Your task to perform on an android device: Go to battery settings Image 0: 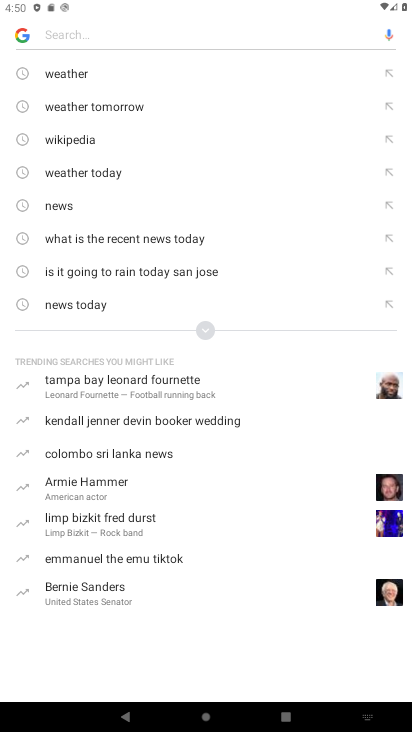
Step 0: press back button
Your task to perform on an android device: Go to battery settings Image 1: 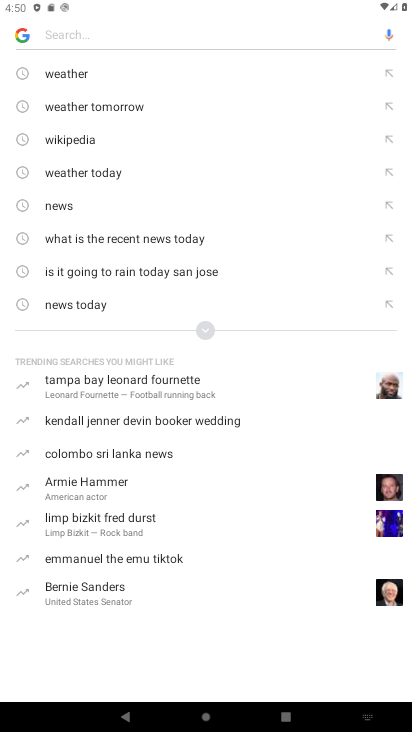
Step 1: press back button
Your task to perform on an android device: Go to battery settings Image 2: 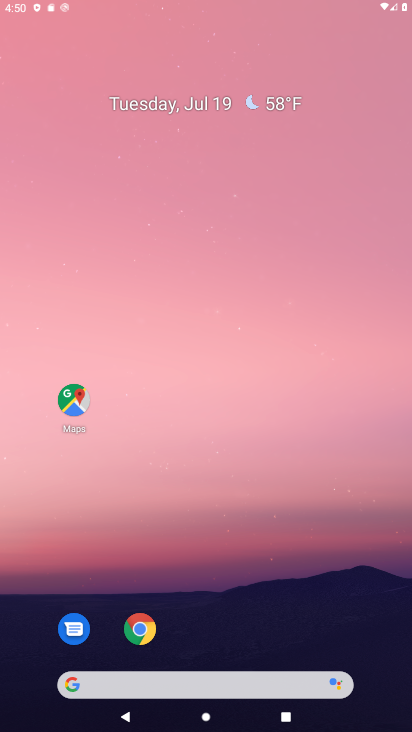
Step 2: press home button
Your task to perform on an android device: Go to battery settings Image 3: 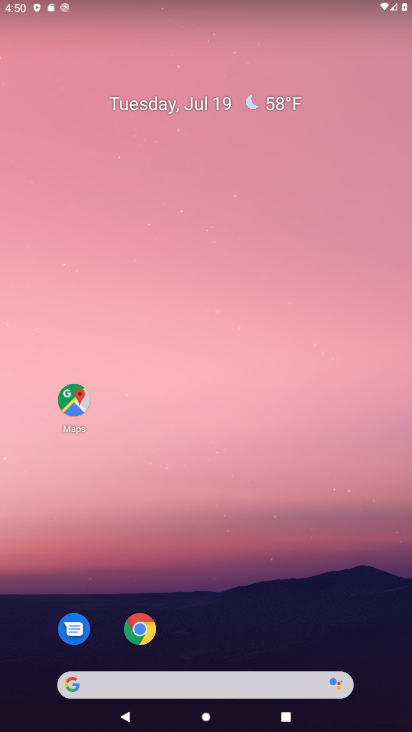
Step 3: press home button
Your task to perform on an android device: Go to battery settings Image 4: 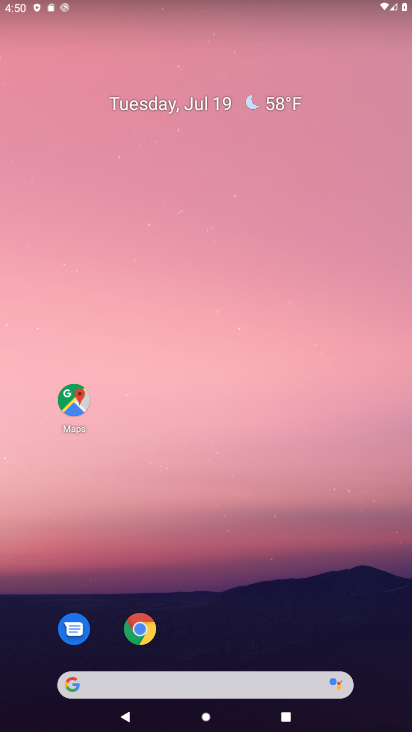
Step 4: drag from (184, 453) to (190, 211)
Your task to perform on an android device: Go to battery settings Image 5: 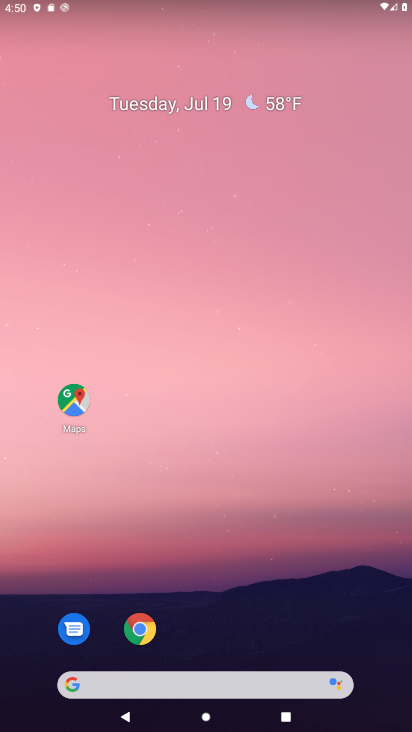
Step 5: click (192, 155)
Your task to perform on an android device: Go to battery settings Image 6: 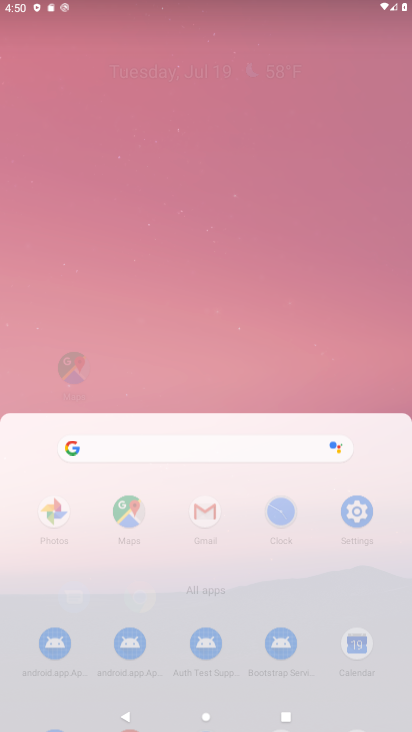
Step 6: drag from (168, 0) to (197, 61)
Your task to perform on an android device: Go to battery settings Image 7: 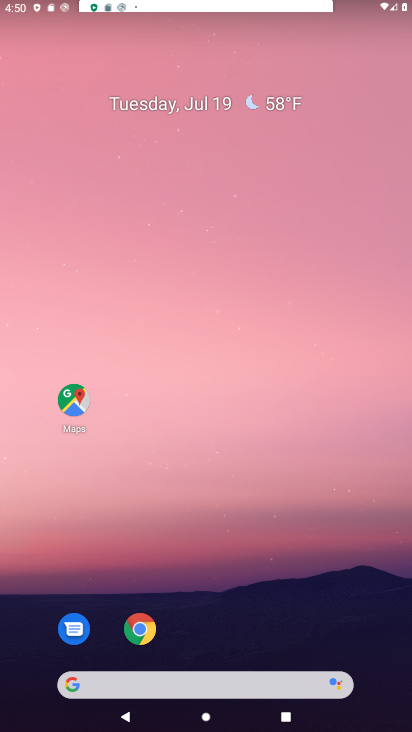
Step 7: drag from (266, 479) to (209, 153)
Your task to perform on an android device: Go to battery settings Image 8: 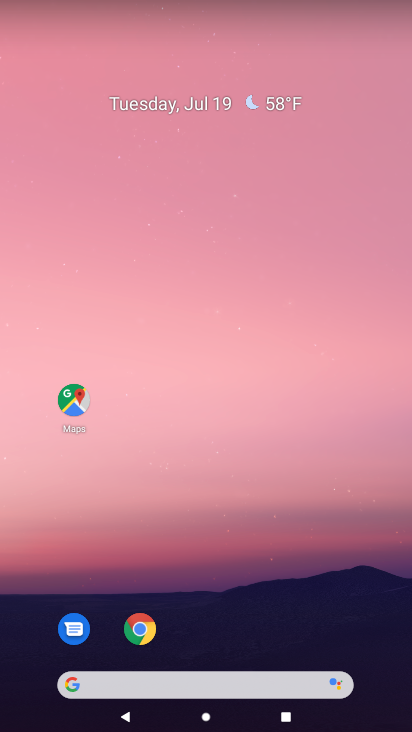
Step 8: drag from (257, 462) to (197, 172)
Your task to perform on an android device: Go to battery settings Image 9: 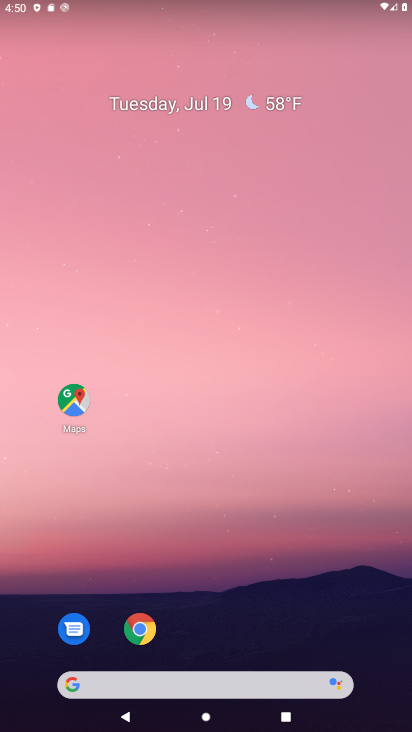
Step 9: drag from (194, 235) to (191, 180)
Your task to perform on an android device: Go to battery settings Image 10: 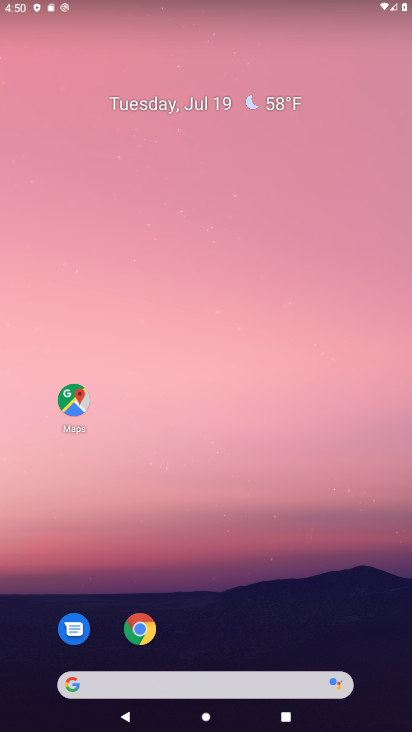
Step 10: drag from (236, 474) to (251, 27)
Your task to perform on an android device: Go to battery settings Image 11: 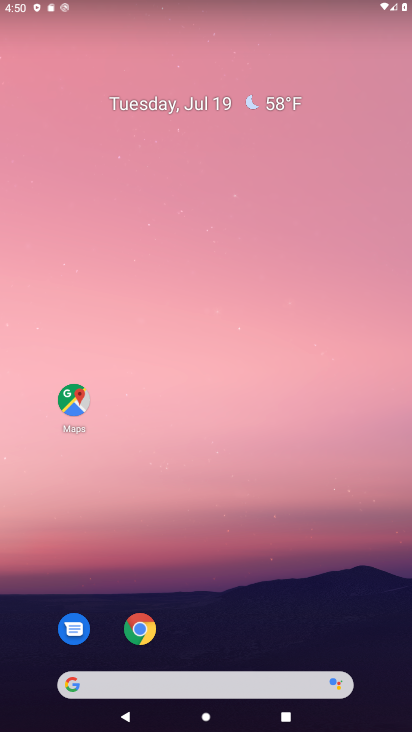
Step 11: drag from (275, 358) to (262, 120)
Your task to perform on an android device: Go to battery settings Image 12: 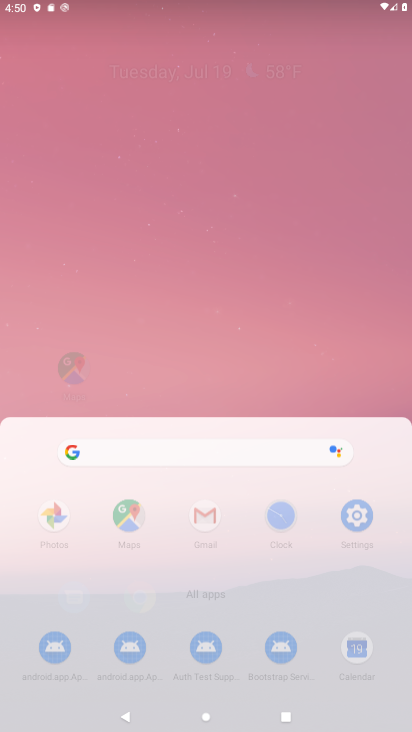
Step 12: drag from (250, 348) to (227, 33)
Your task to perform on an android device: Go to battery settings Image 13: 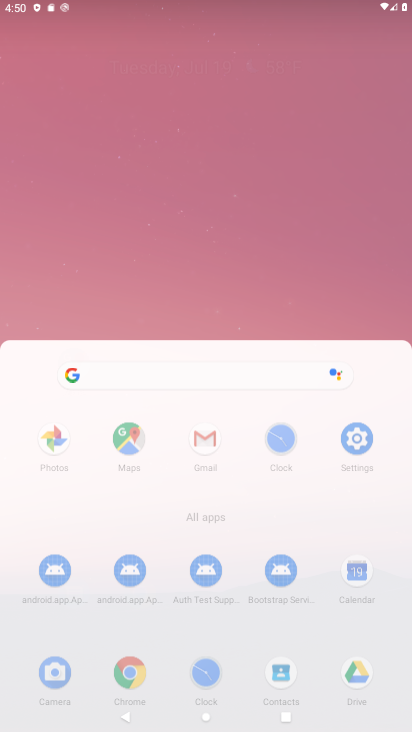
Step 13: drag from (188, 389) to (213, 302)
Your task to perform on an android device: Go to battery settings Image 14: 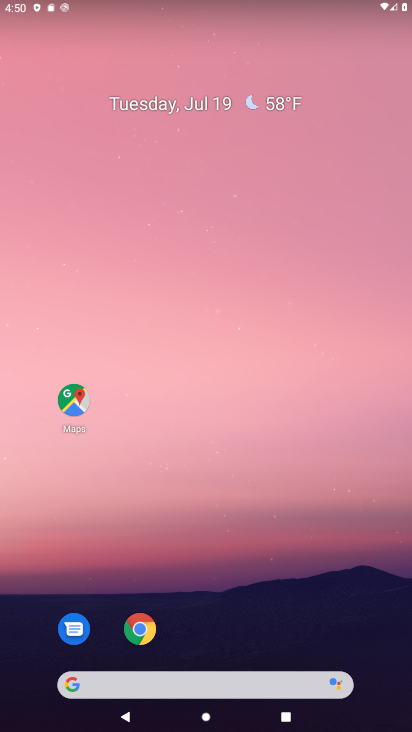
Step 14: drag from (267, 429) to (268, 170)
Your task to perform on an android device: Go to battery settings Image 15: 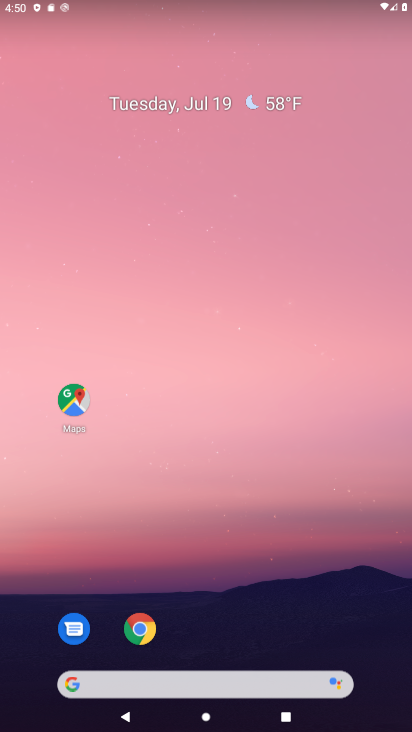
Step 15: drag from (172, 370) to (110, 25)
Your task to perform on an android device: Go to battery settings Image 16: 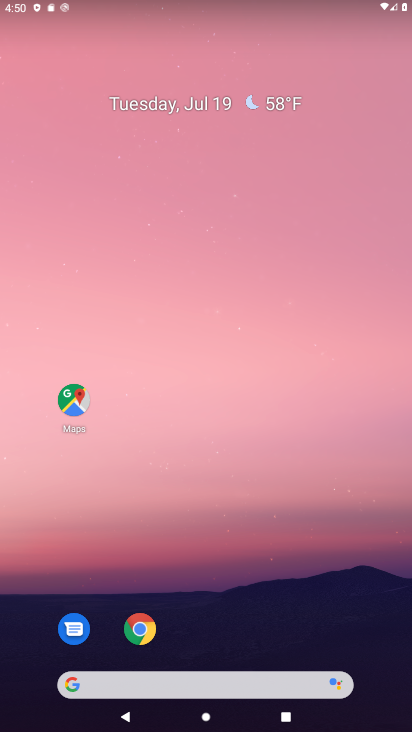
Step 16: drag from (235, 354) to (219, 6)
Your task to perform on an android device: Go to battery settings Image 17: 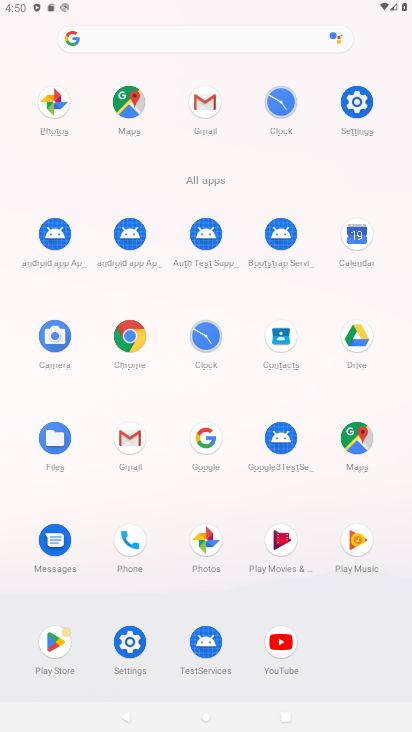
Step 17: drag from (193, 451) to (135, 68)
Your task to perform on an android device: Go to battery settings Image 18: 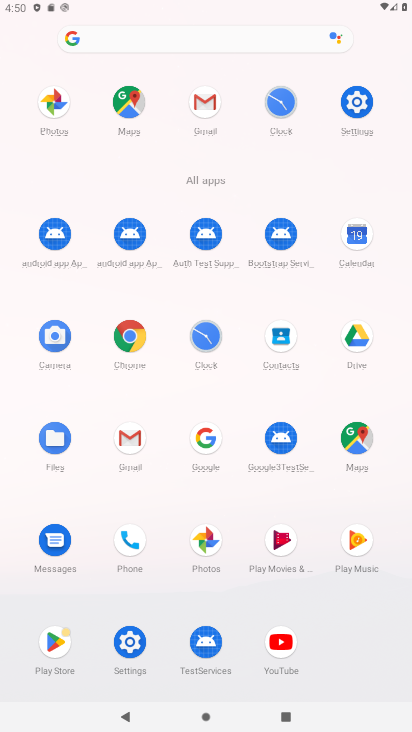
Step 18: click (374, 91)
Your task to perform on an android device: Go to battery settings Image 19: 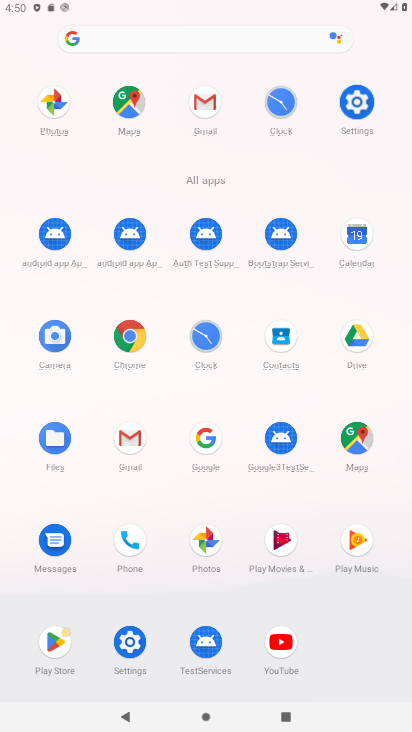
Step 19: click (360, 100)
Your task to perform on an android device: Go to battery settings Image 20: 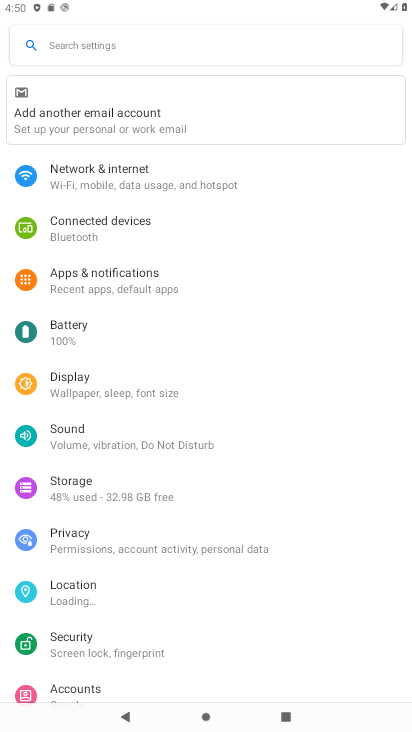
Step 20: click (52, 338)
Your task to perform on an android device: Go to battery settings Image 21: 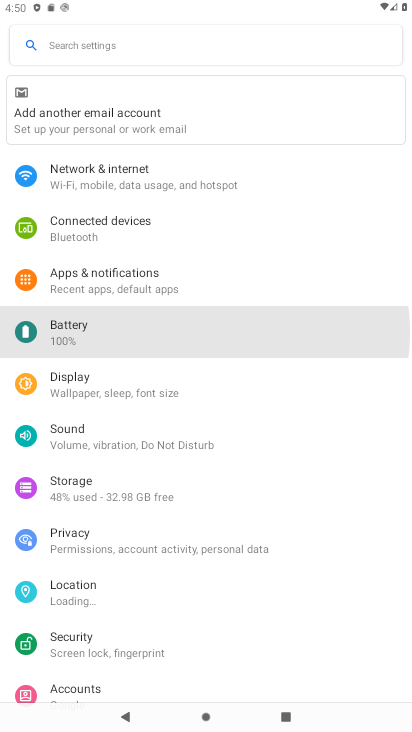
Step 21: click (55, 337)
Your task to perform on an android device: Go to battery settings Image 22: 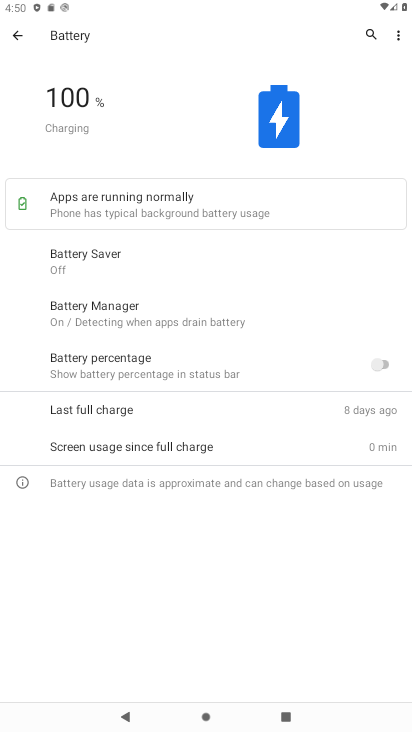
Step 22: task complete